Your task to perform on an android device: Go to battery settings Image 0: 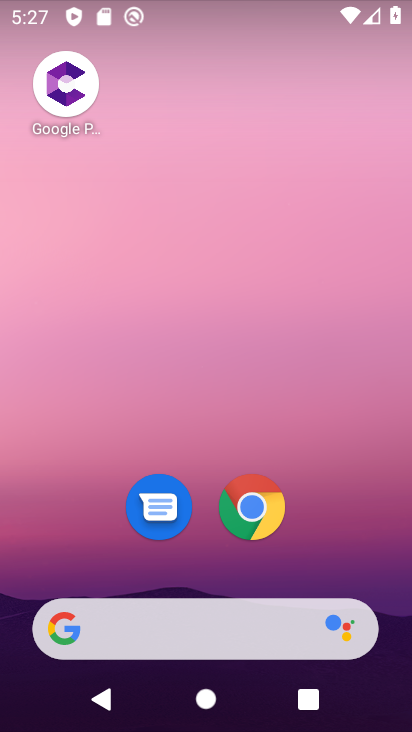
Step 0: drag from (229, 593) to (280, 206)
Your task to perform on an android device: Go to battery settings Image 1: 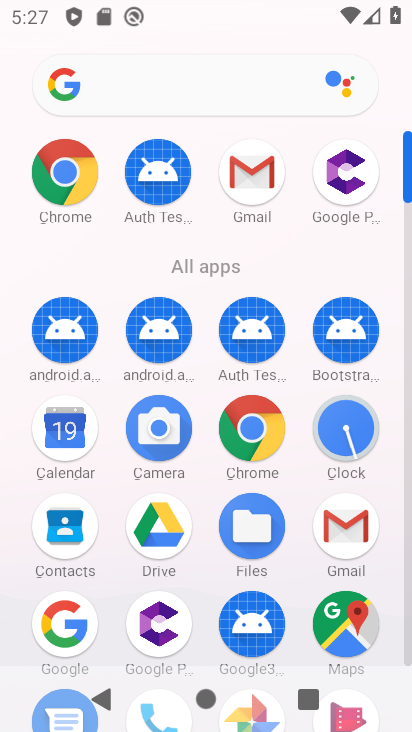
Step 1: drag from (208, 604) to (227, 220)
Your task to perform on an android device: Go to battery settings Image 2: 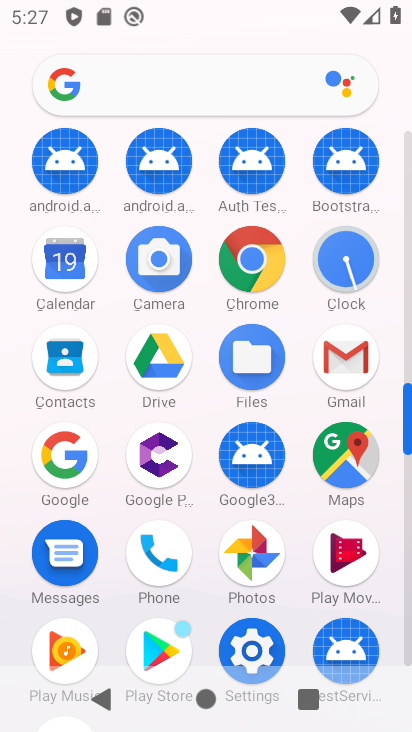
Step 2: drag from (215, 624) to (241, 254)
Your task to perform on an android device: Go to battery settings Image 3: 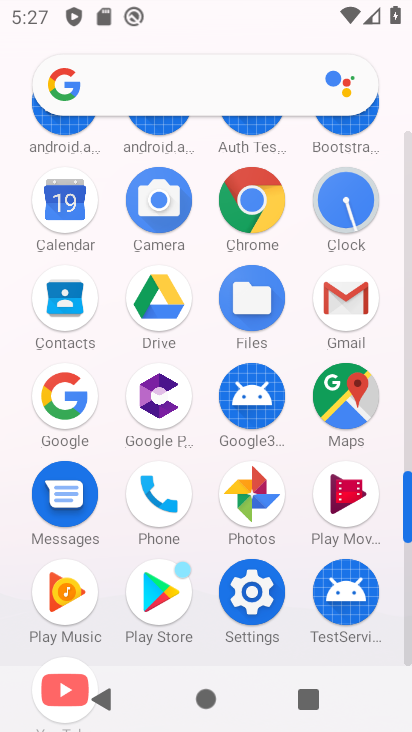
Step 3: click (254, 585)
Your task to perform on an android device: Go to battery settings Image 4: 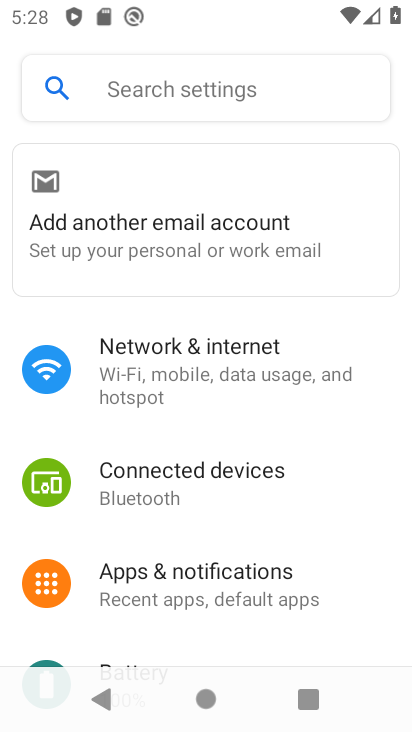
Step 4: drag from (267, 641) to (283, 327)
Your task to perform on an android device: Go to battery settings Image 5: 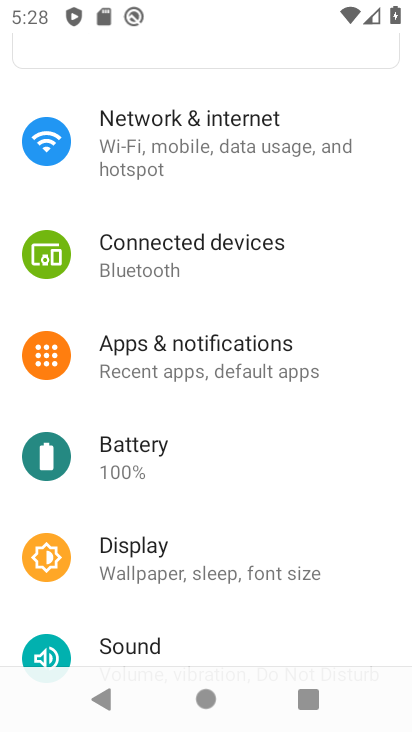
Step 5: click (142, 457)
Your task to perform on an android device: Go to battery settings Image 6: 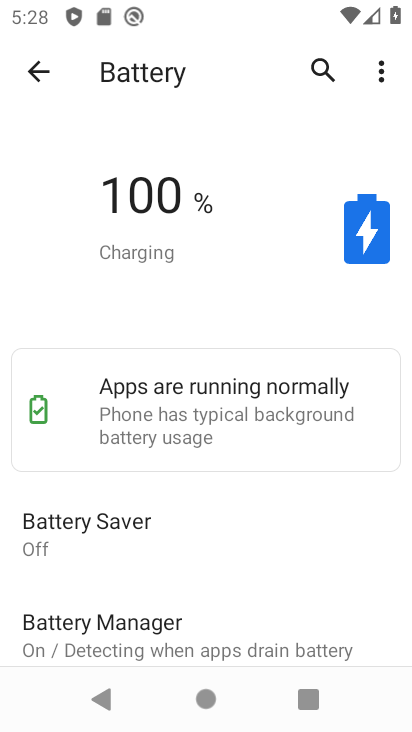
Step 6: drag from (214, 537) to (257, 225)
Your task to perform on an android device: Go to battery settings Image 7: 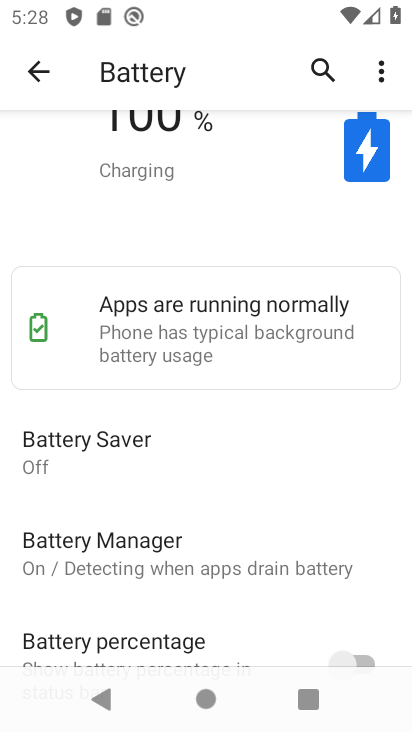
Step 7: drag from (202, 642) to (241, 335)
Your task to perform on an android device: Go to battery settings Image 8: 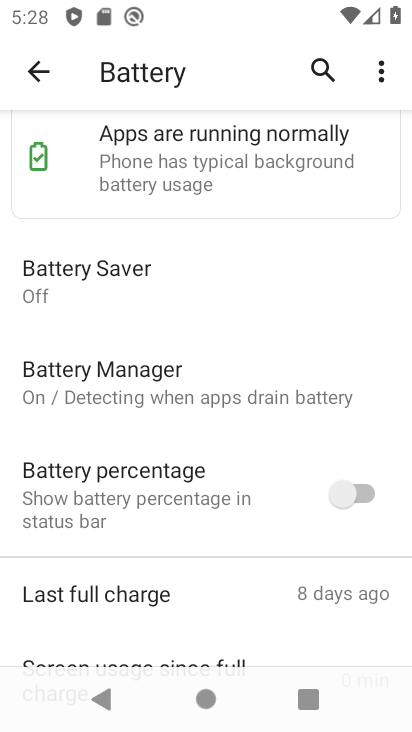
Step 8: drag from (223, 622) to (257, 329)
Your task to perform on an android device: Go to battery settings Image 9: 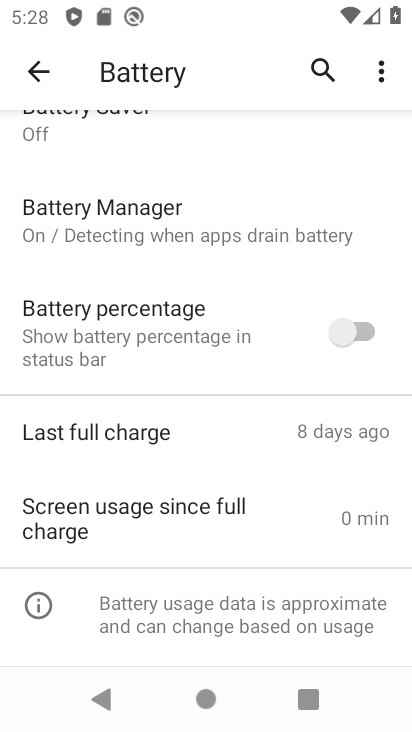
Step 9: click (383, 73)
Your task to perform on an android device: Go to battery settings Image 10: 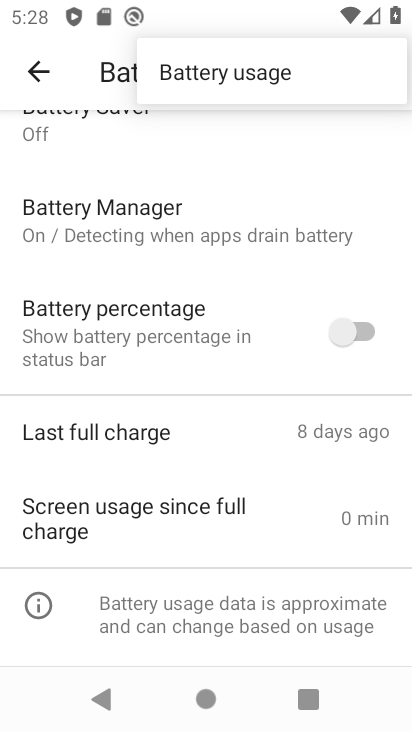
Step 10: click (286, 77)
Your task to perform on an android device: Go to battery settings Image 11: 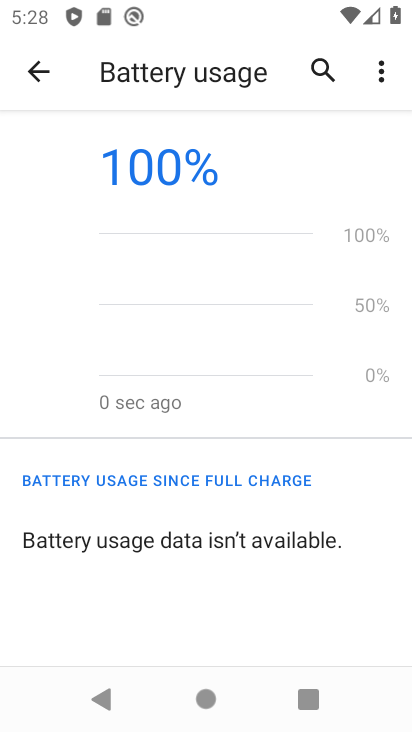
Step 11: task complete